Your task to perform on an android device: Go to Wikipedia Image 0: 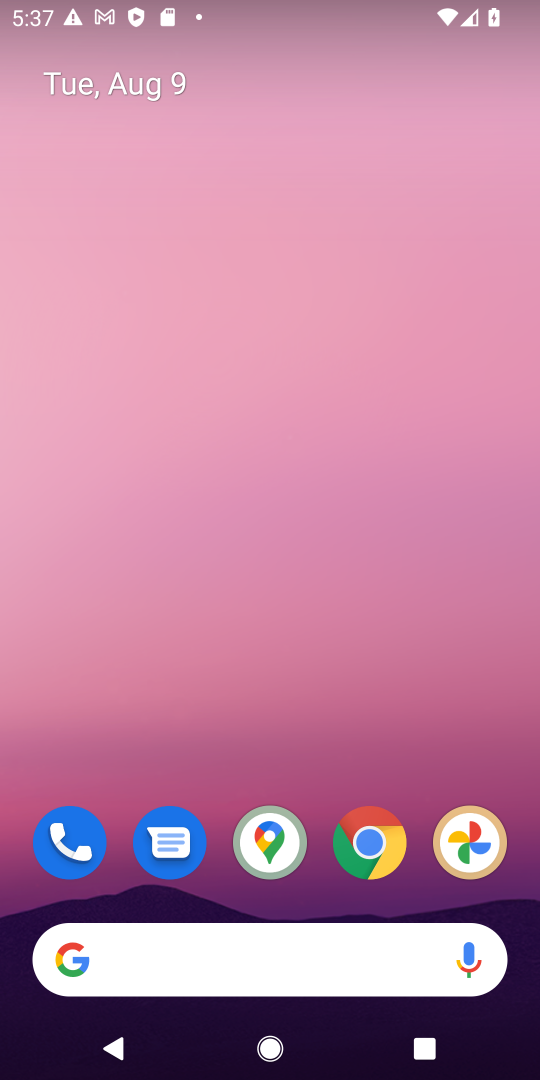
Step 0: drag from (235, 622) to (222, 91)
Your task to perform on an android device: Go to Wikipedia Image 1: 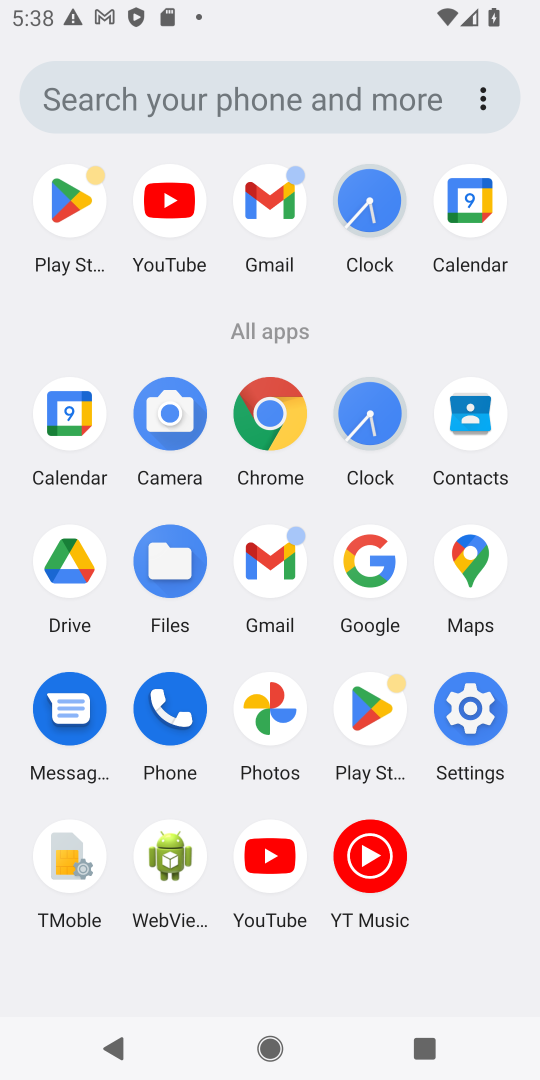
Step 1: click (274, 432)
Your task to perform on an android device: Go to Wikipedia Image 2: 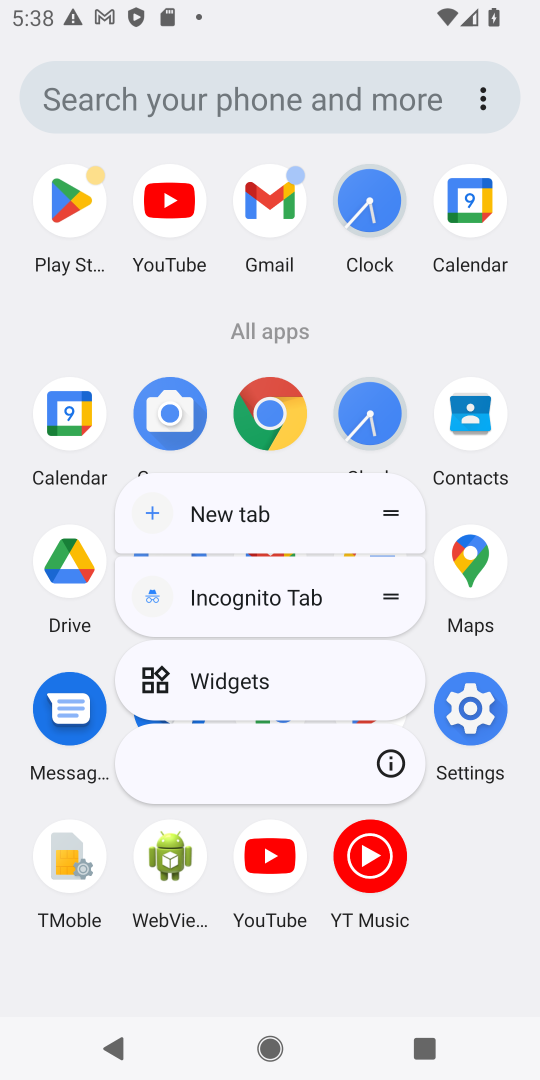
Step 2: click (274, 431)
Your task to perform on an android device: Go to Wikipedia Image 3: 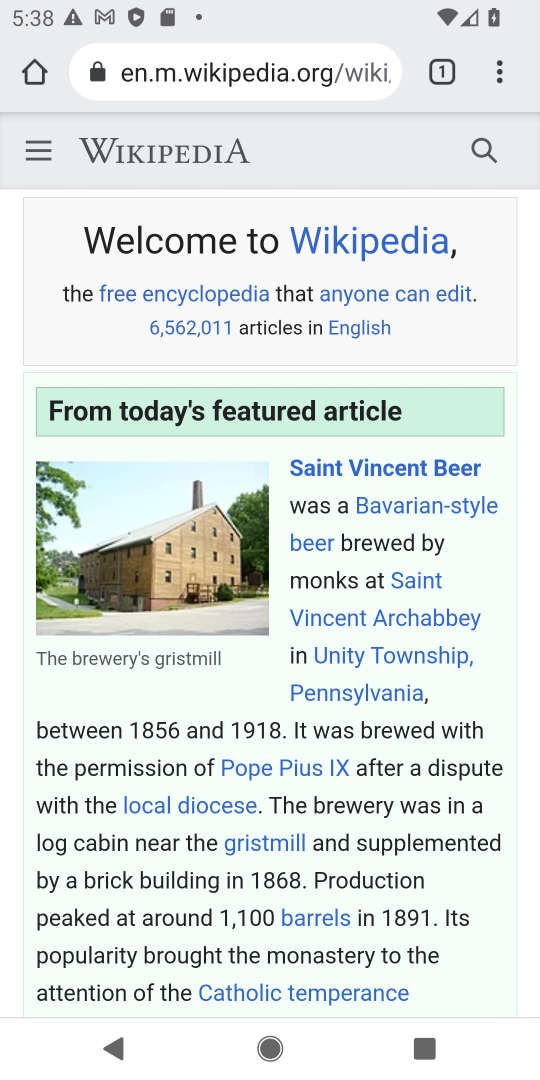
Step 3: task complete